Your task to perform on an android device: Go to accessibility settings Image 0: 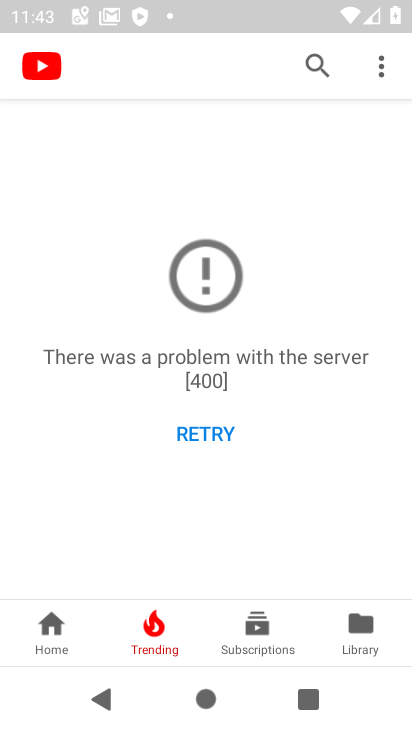
Step 0: press home button
Your task to perform on an android device: Go to accessibility settings Image 1: 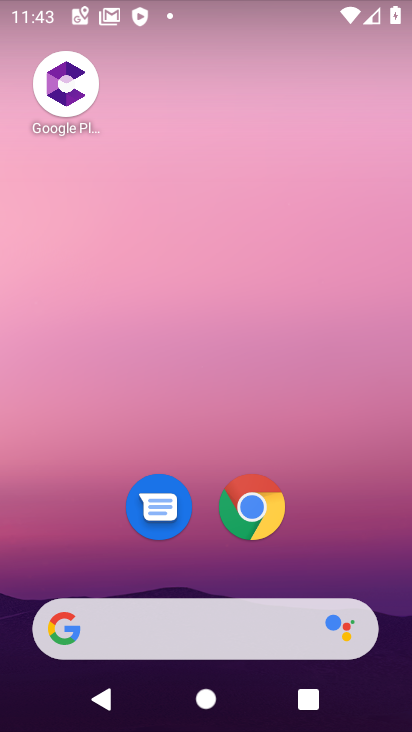
Step 1: drag from (333, 514) to (310, 10)
Your task to perform on an android device: Go to accessibility settings Image 2: 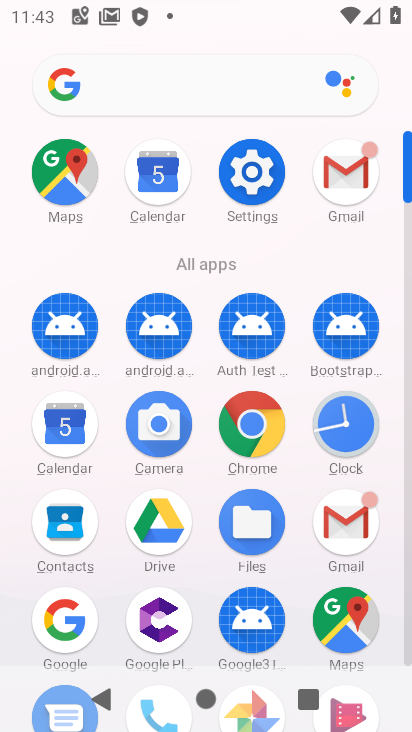
Step 2: click (245, 178)
Your task to perform on an android device: Go to accessibility settings Image 3: 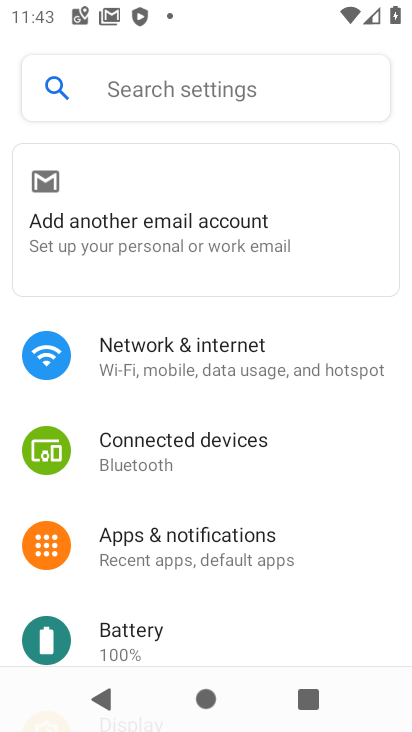
Step 3: drag from (233, 594) to (195, 116)
Your task to perform on an android device: Go to accessibility settings Image 4: 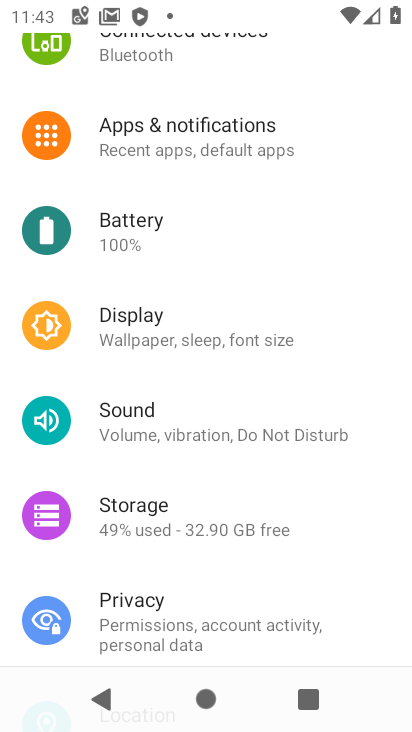
Step 4: drag from (214, 561) to (188, 117)
Your task to perform on an android device: Go to accessibility settings Image 5: 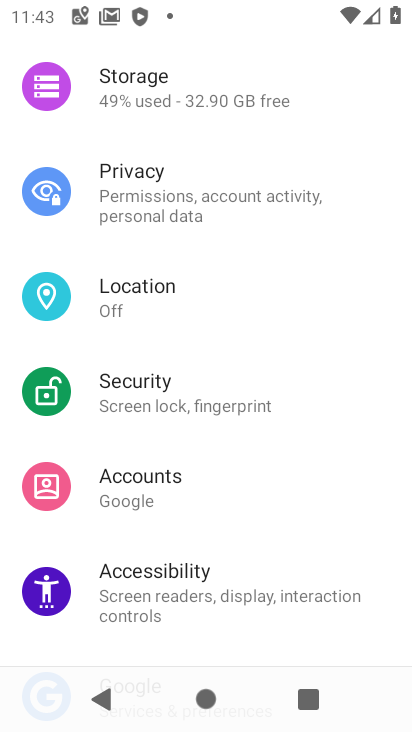
Step 5: click (165, 567)
Your task to perform on an android device: Go to accessibility settings Image 6: 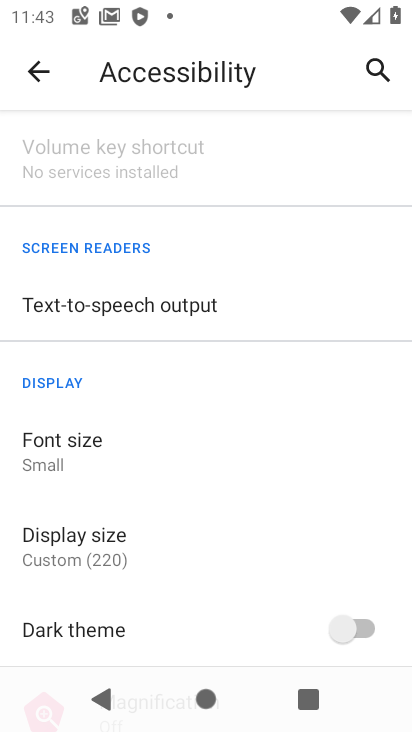
Step 6: task complete